Your task to perform on an android device: Open Android settings Image 0: 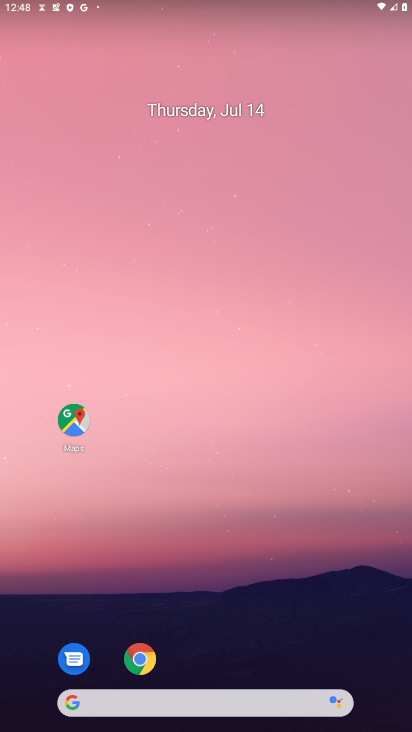
Step 0: drag from (143, 593) to (326, 276)
Your task to perform on an android device: Open Android settings Image 1: 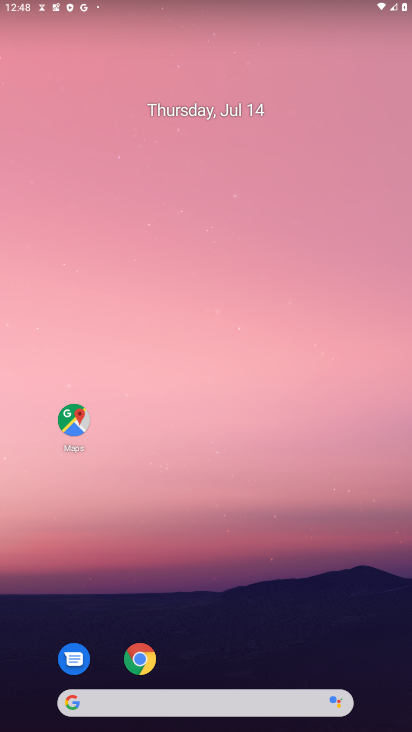
Step 1: drag from (23, 662) to (308, 98)
Your task to perform on an android device: Open Android settings Image 2: 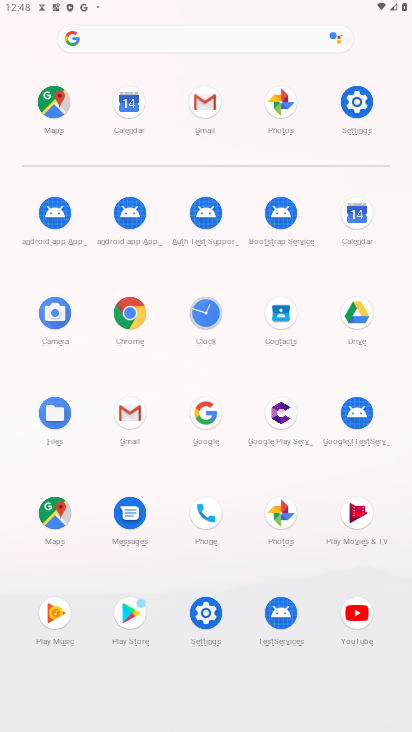
Step 2: click (198, 607)
Your task to perform on an android device: Open Android settings Image 3: 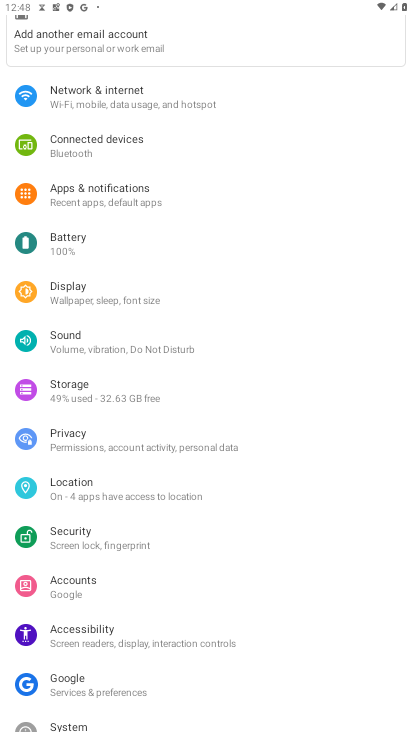
Step 3: drag from (145, 685) to (296, 196)
Your task to perform on an android device: Open Android settings Image 4: 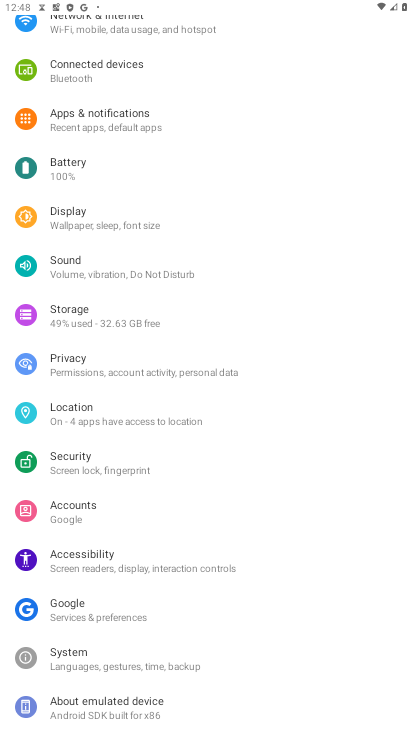
Step 4: click (91, 707)
Your task to perform on an android device: Open Android settings Image 5: 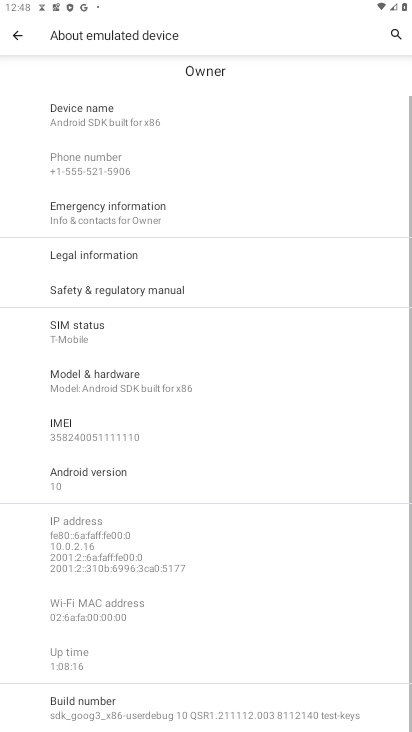
Step 5: click (108, 489)
Your task to perform on an android device: Open Android settings Image 6: 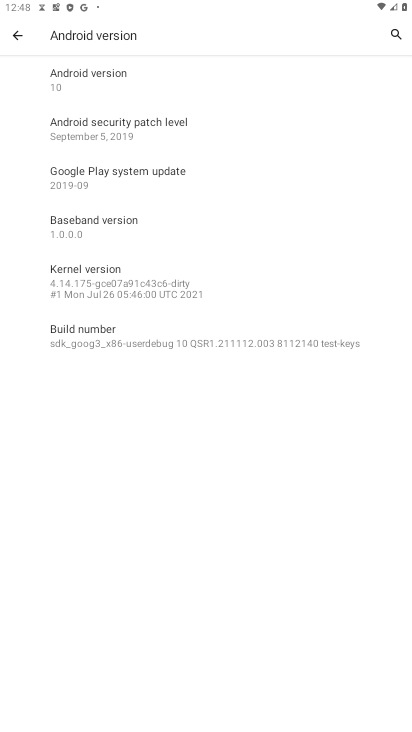
Step 6: task complete